Your task to perform on an android device: Search for the best rated drill on Lowes.com Image 0: 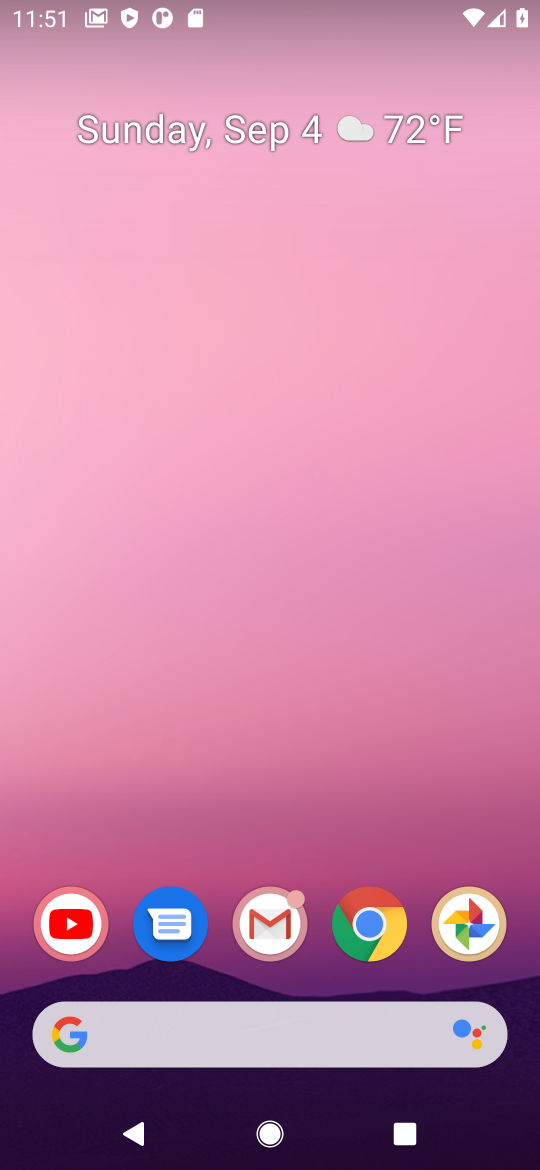
Step 0: press home button
Your task to perform on an android device: Search for the best rated drill on Lowes.com Image 1: 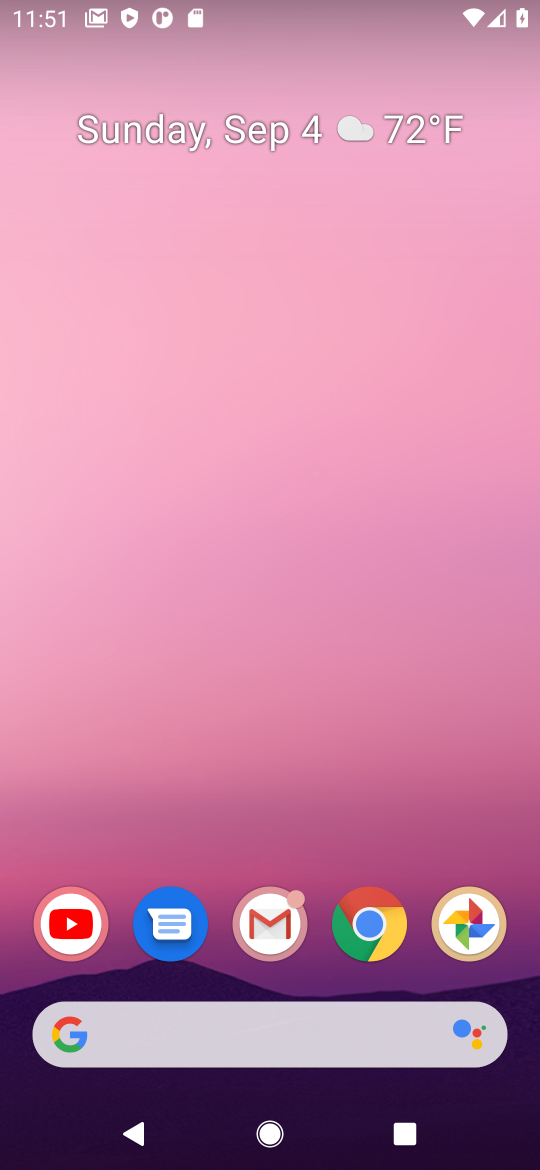
Step 1: click (370, 11)
Your task to perform on an android device: Search for the best rated drill on Lowes.com Image 2: 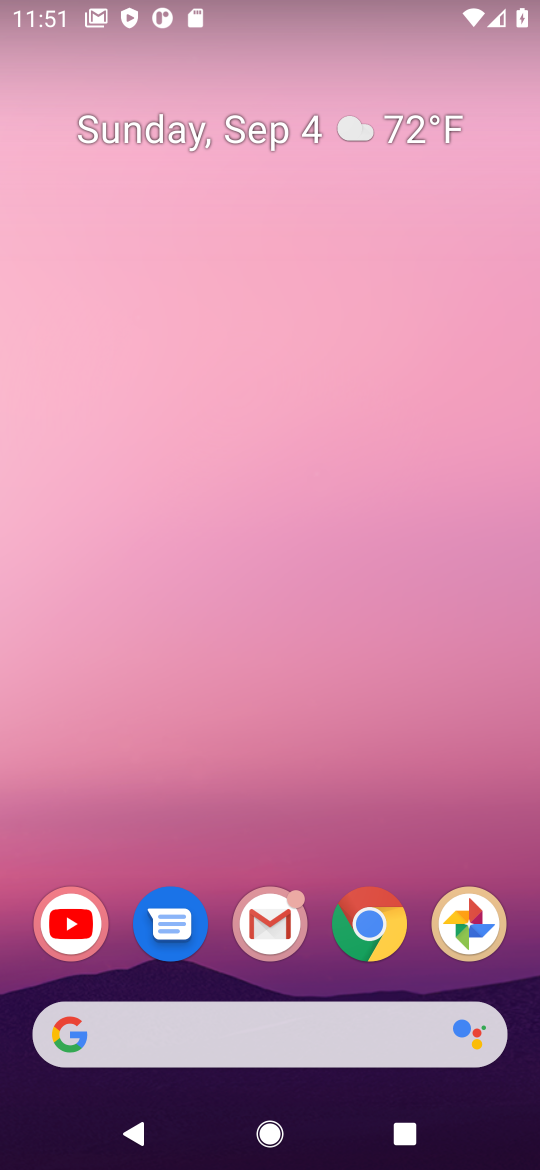
Step 2: drag from (315, 870) to (356, 29)
Your task to perform on an android device: Search for the best rated drill on Lowes.com Image 3: 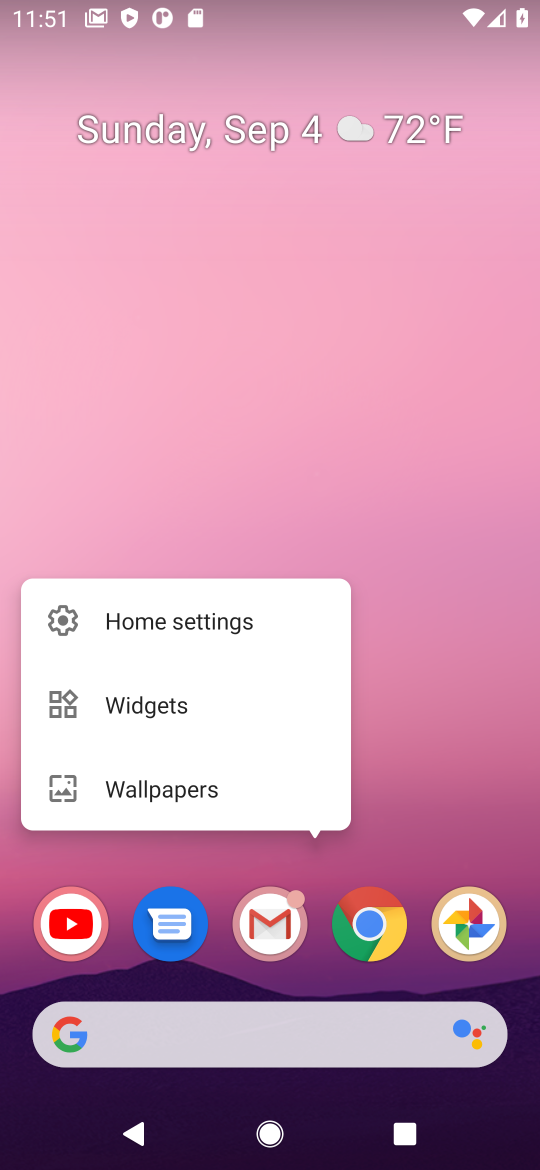
Step 3: click (445, 849)
Your task to perform on an android device: Search for the best rated drill on Lowes.com Image 4: 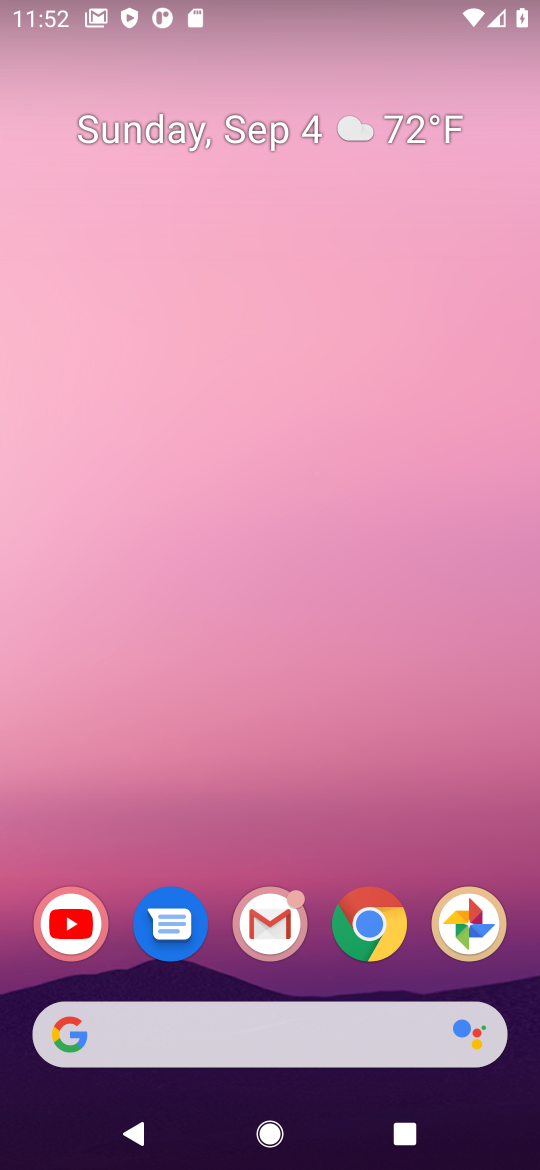
Step 4: drag from (414, 54) to (412, 1)
Your task to perform on an android device: Search for the best rated drill on Lowes.com Image 5: 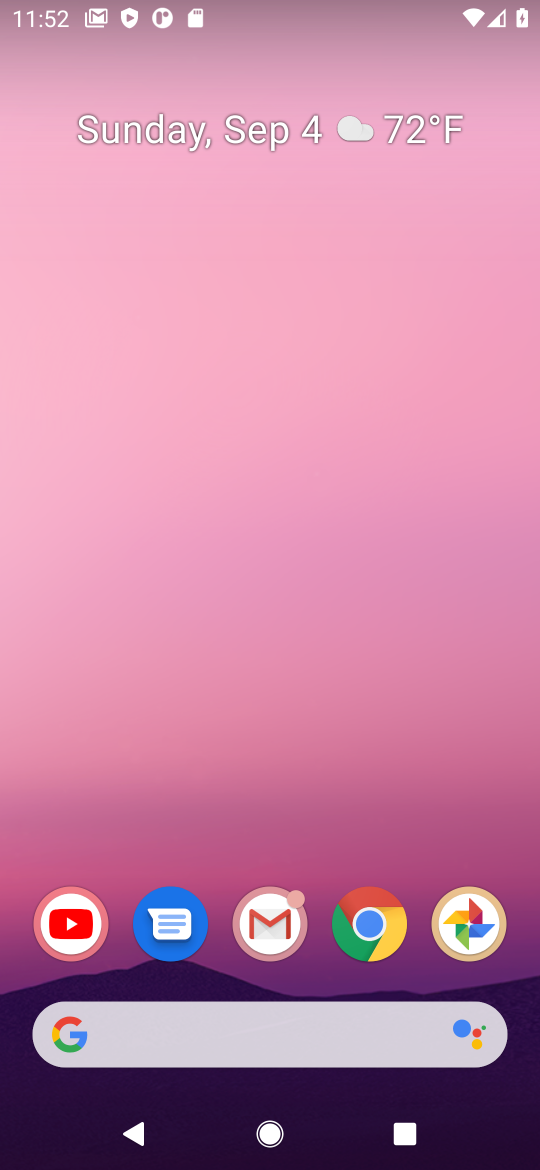
Step 5: drag from (303, 557) to (302, 56)
Your task to perform on an android device: Search for the best rated drill on Lowes.com Image 6: 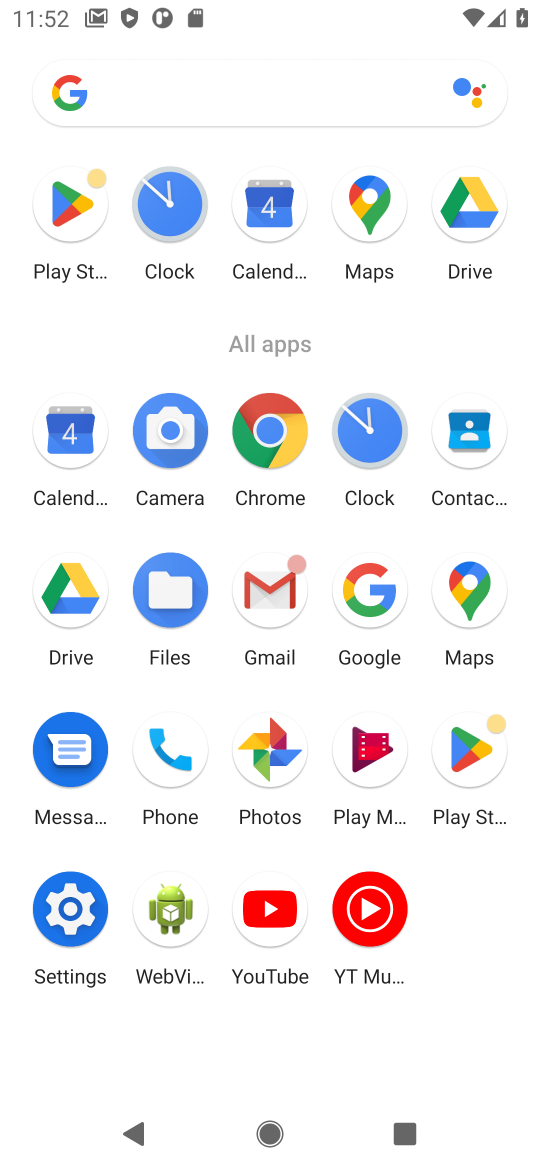
Step 6: click (269, 424)
Your task to perform on an android device: Search for the best rated drill on Lowes.com Image 7: 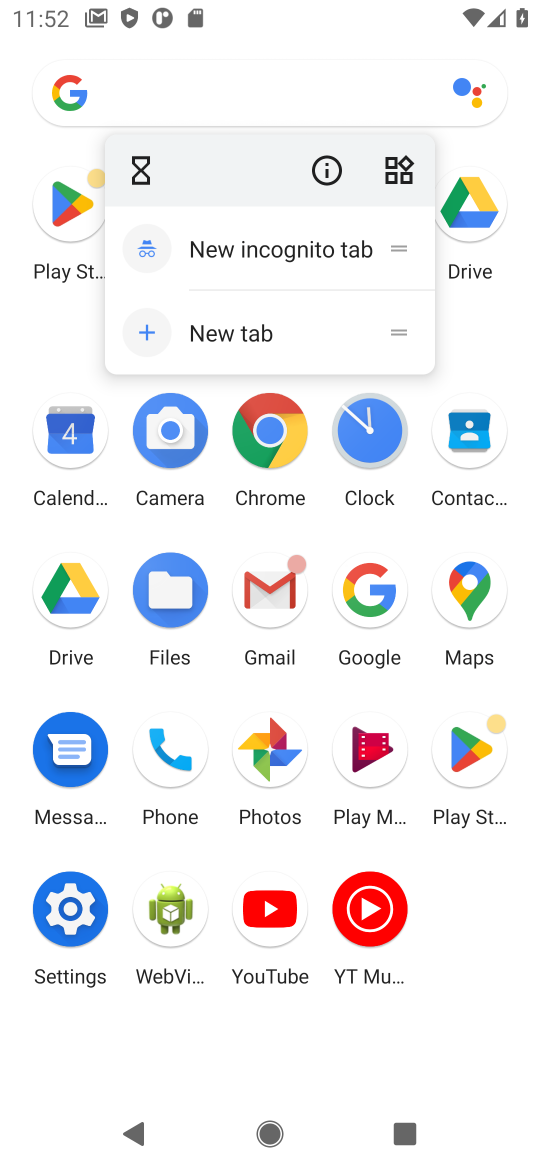
Step 7: click (269, 424)
Your task to perform on an android device: Search for the best rated drill on Lowes.com Image 8: 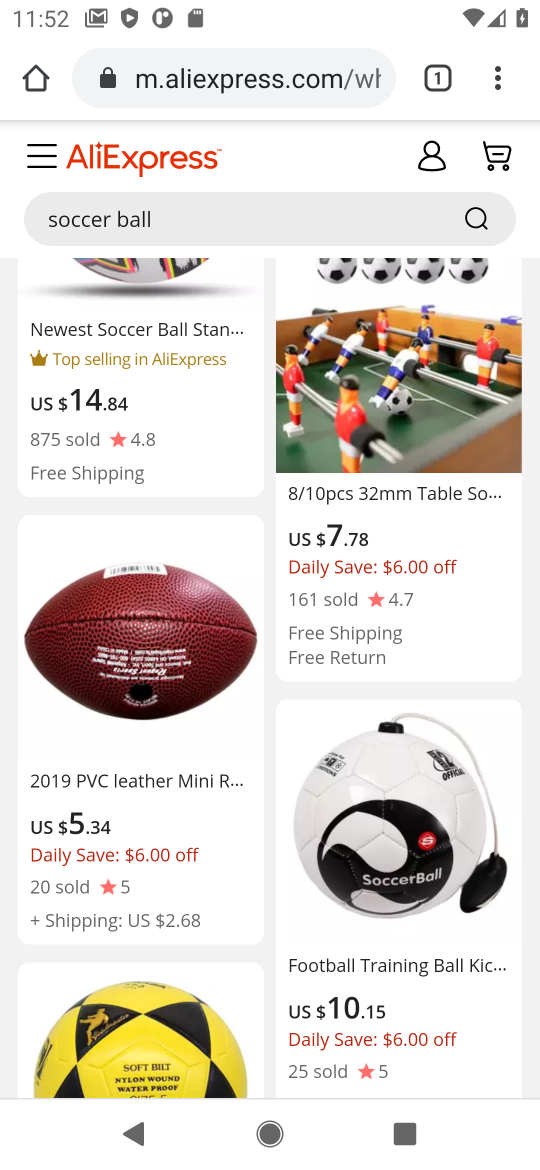
Step 8: click (439, 74)
Your task to perform on an android device: Search for the best rated drill on Lowes.com Image 9: 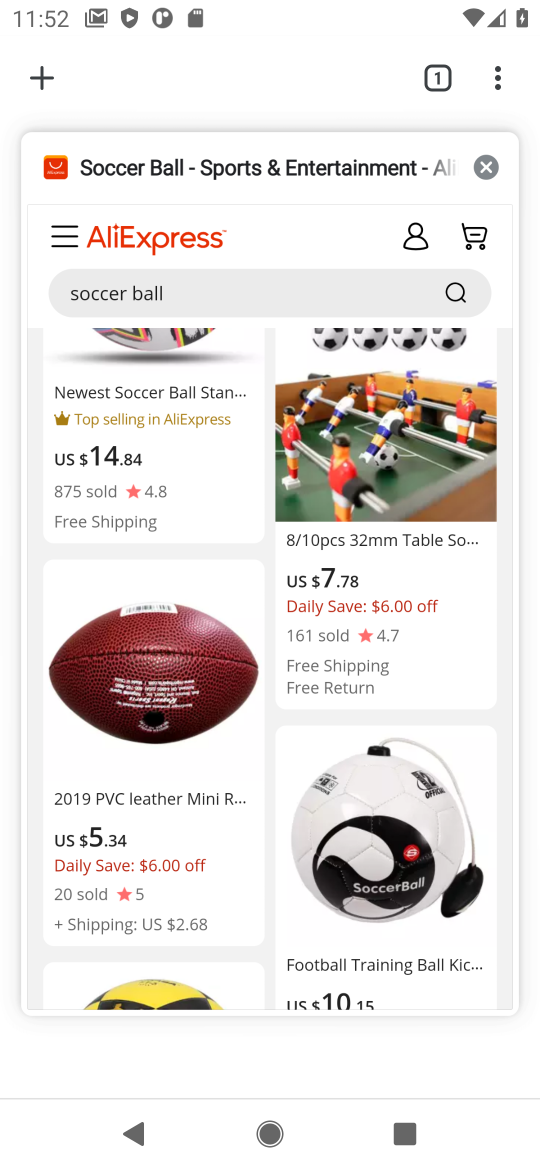
Step 9: click (489, 167)
Your task to perform on an android device: Search for the best rated drill on Lowes.com Image 10: 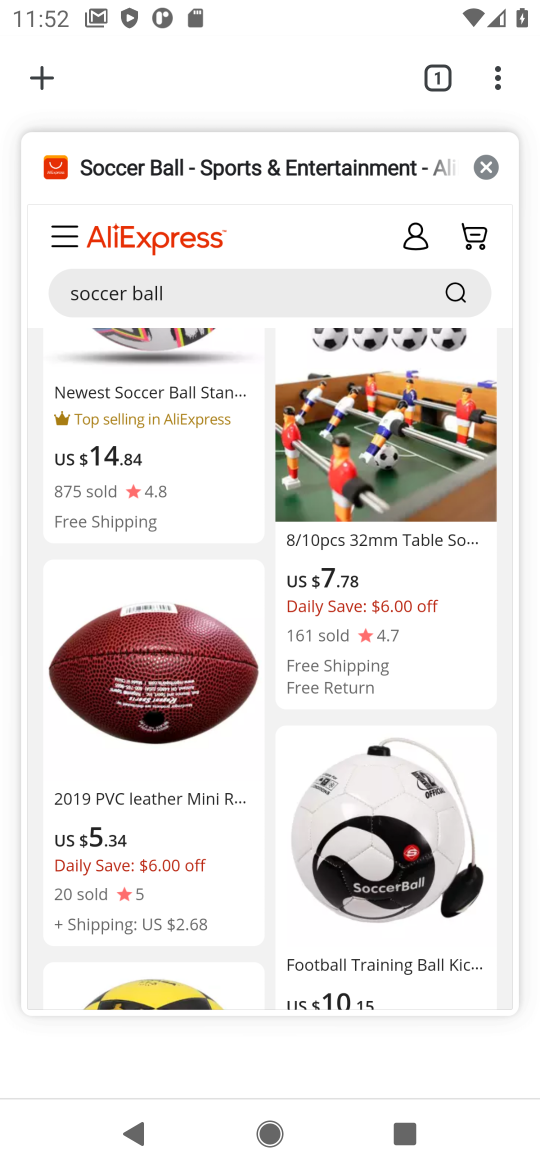
Step 10: click (56, 82)
Your task to perform on an android device: Search for the best rated drill on Lowes.com Image 11: 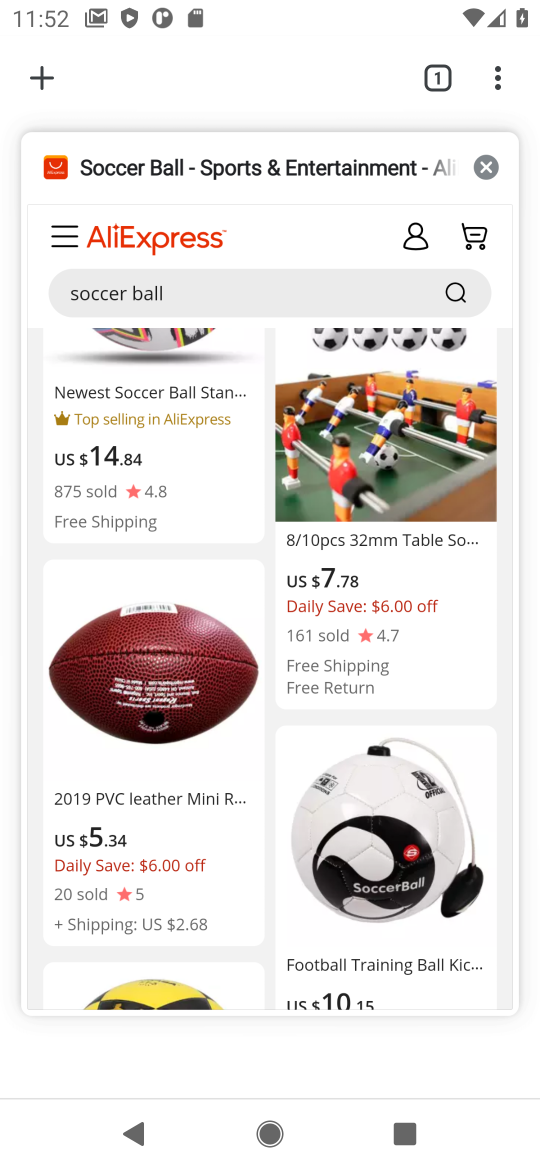
Step 11: click (41, 72)
Your task to perform on an android device: Search for the best rated drill on Lowes.com Image 12: 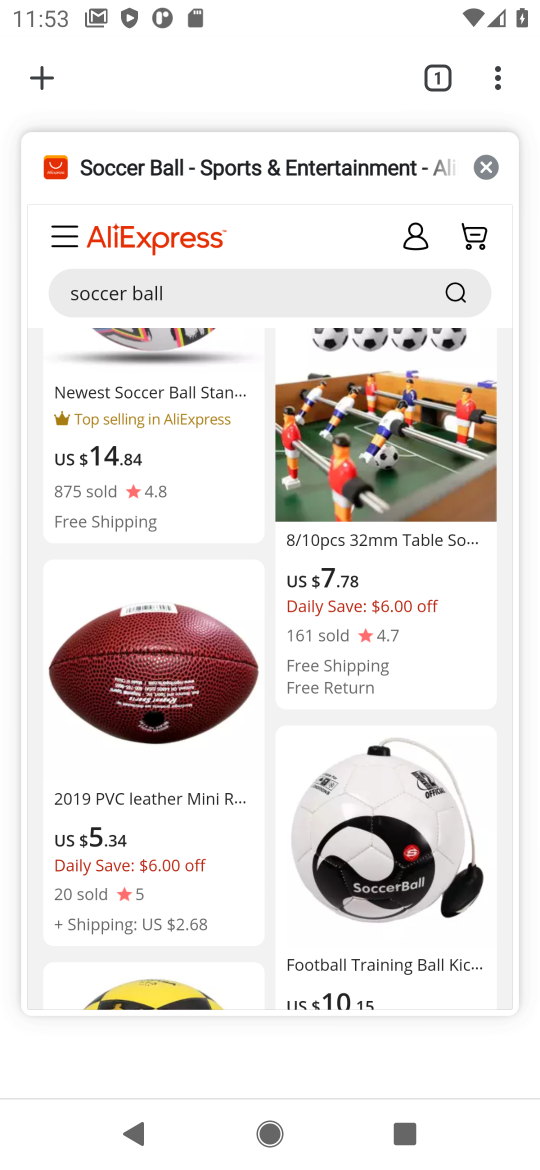
Step 12: click (50, 81)
Your task to perform on an android device: Search for the best rated drill on Lowes.com Image 13: 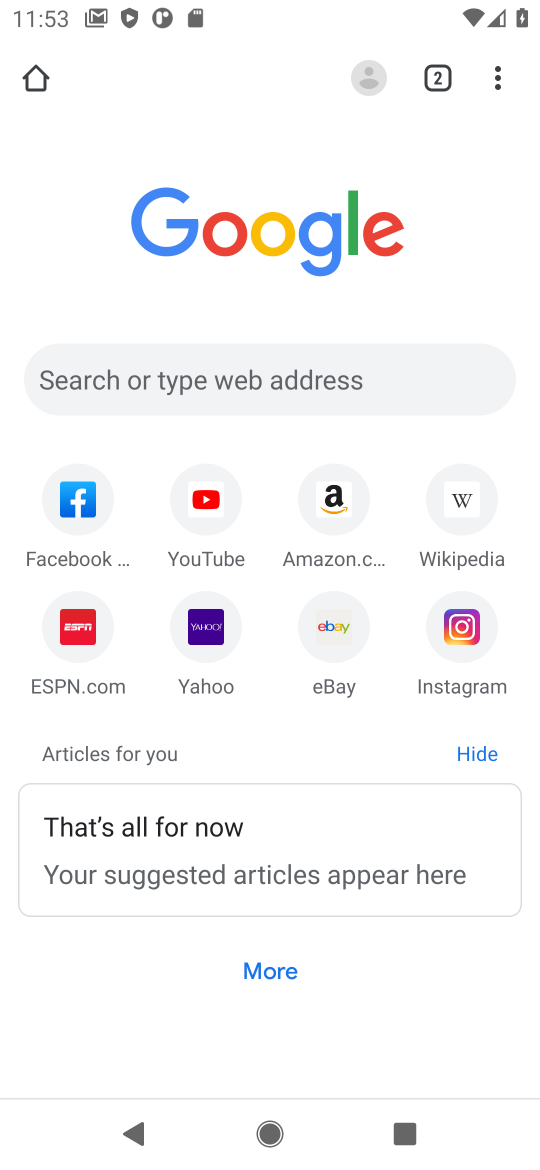
Step 13: click (150, 361)
Your task to perform on an android device: Search for the best rated drill on Lowes.com Image 14: 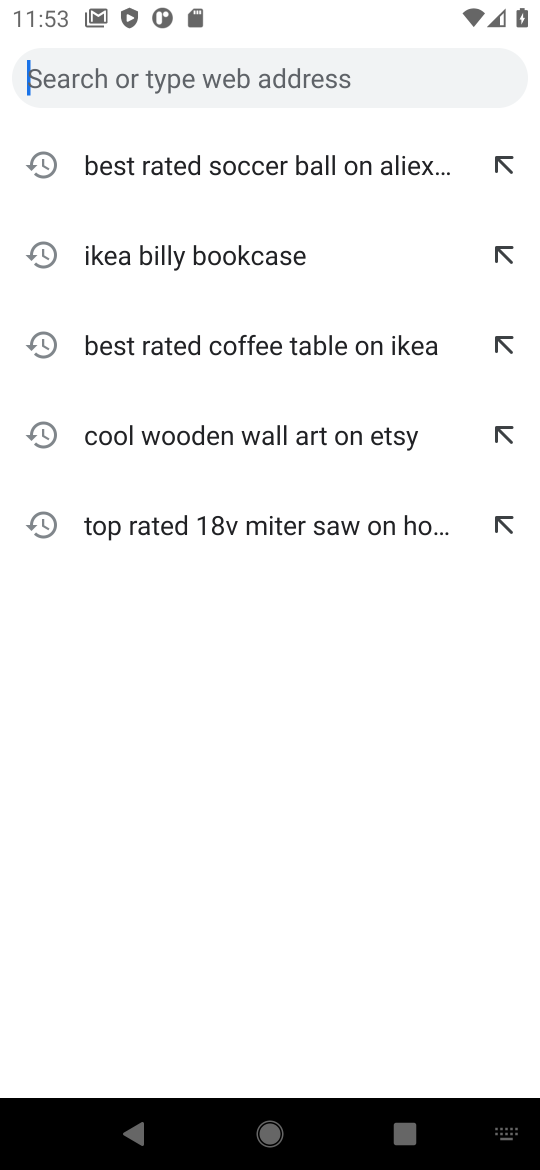
Step 14: type "best rated drill on Lowes.com"
Your task to perform on an android device: Search for the best rated drill on Lowes.com Image 15: 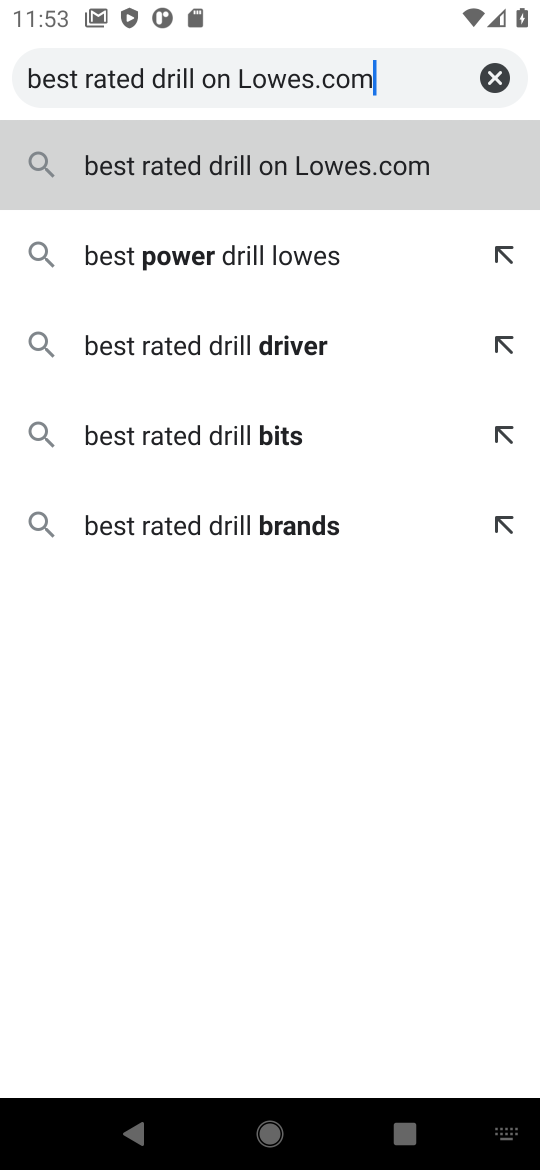
Step 15: click (290, 172)
Your task to perform on an android device: Search for the best rated drill on Lowes.com Image 16: 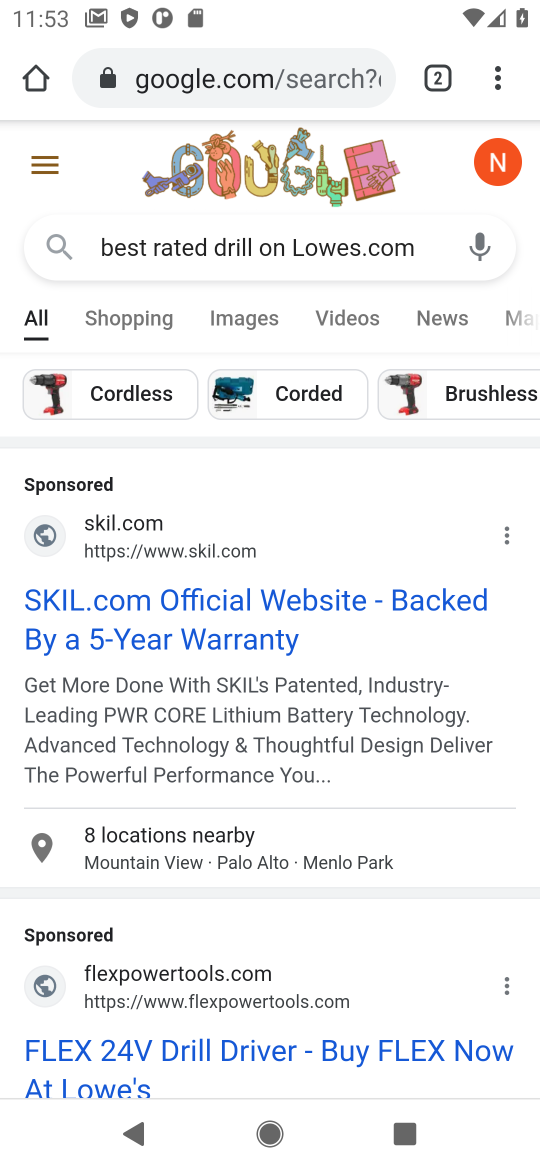
Step 16: drag from (321, 818) to (295, 283)
Your task to perform on an android device: Search for the best rated drill on Lowes.com Image 17: 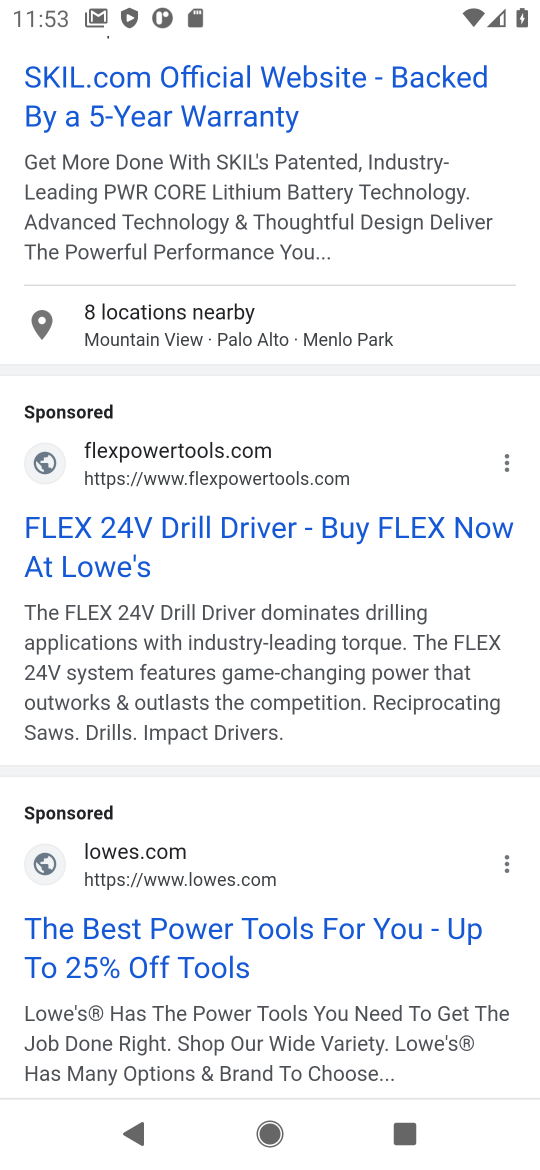
Step 17: drag from (339, 518) to (334, 339)
Your task to perform on an android device: Search for the best rated drill on Lowes.com Image 18: 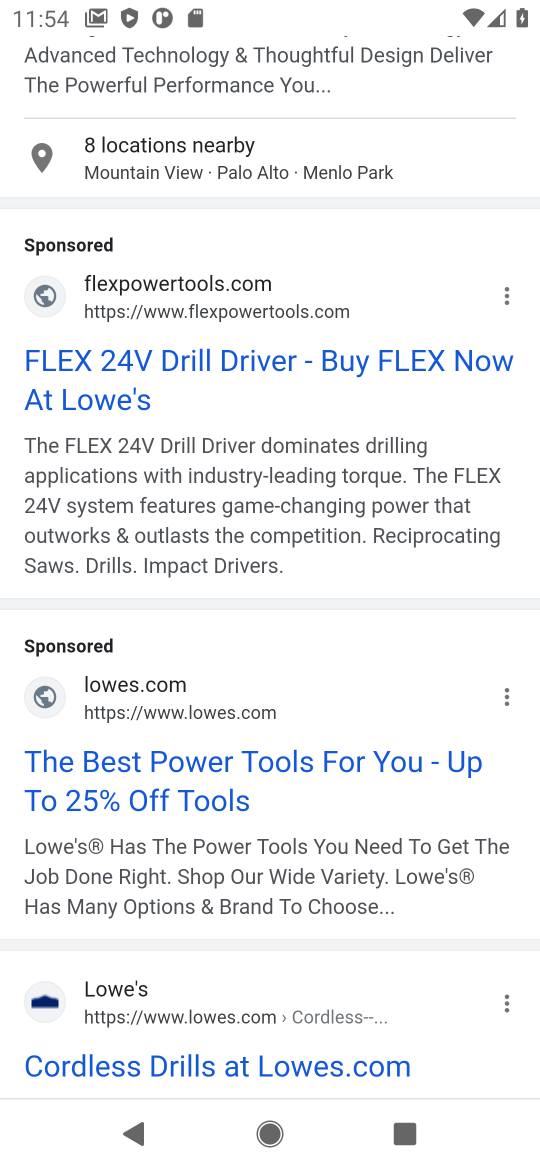
Step 18: click (341, 1068)
Your task to perform on an android device: Search for the best rated drill on Lowes.com Image 19: 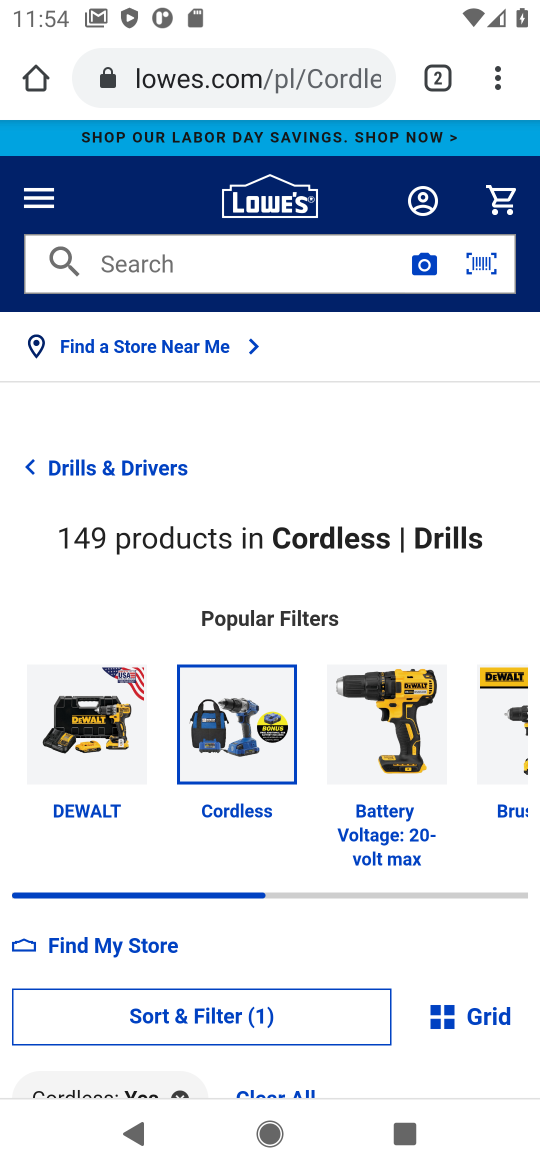
Step 19: drag from (277, 773) to (279, 189)
Your task to perform on an android device: Search for the best rated drill on Lowes.com Image 20: 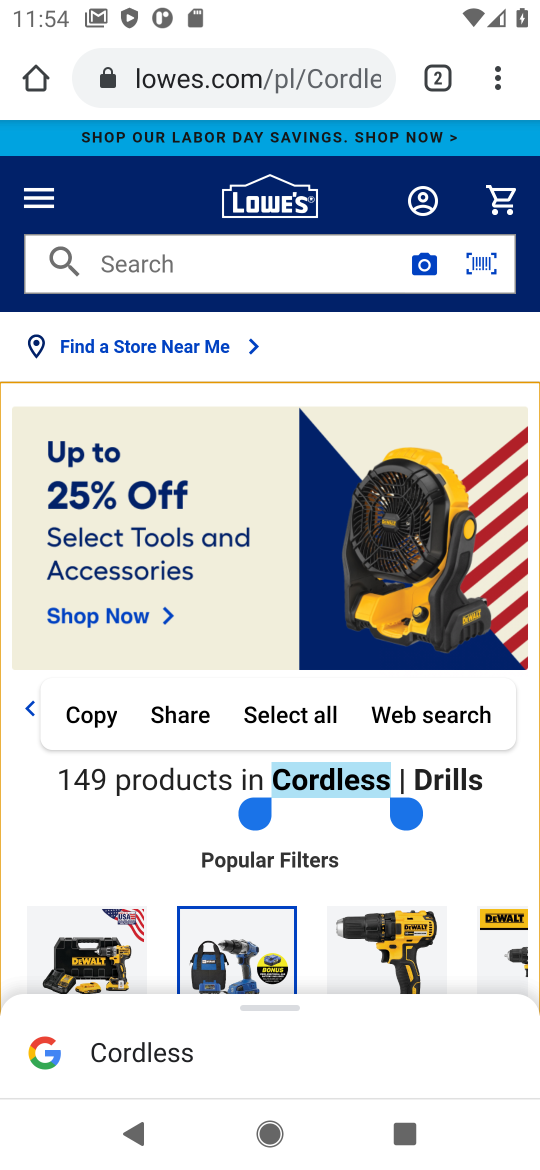
Step 20: drag from (296, 707) to (277, 442)
Your task to perform on an android device: Search for the best rated drill on Lowes.com Image 21: 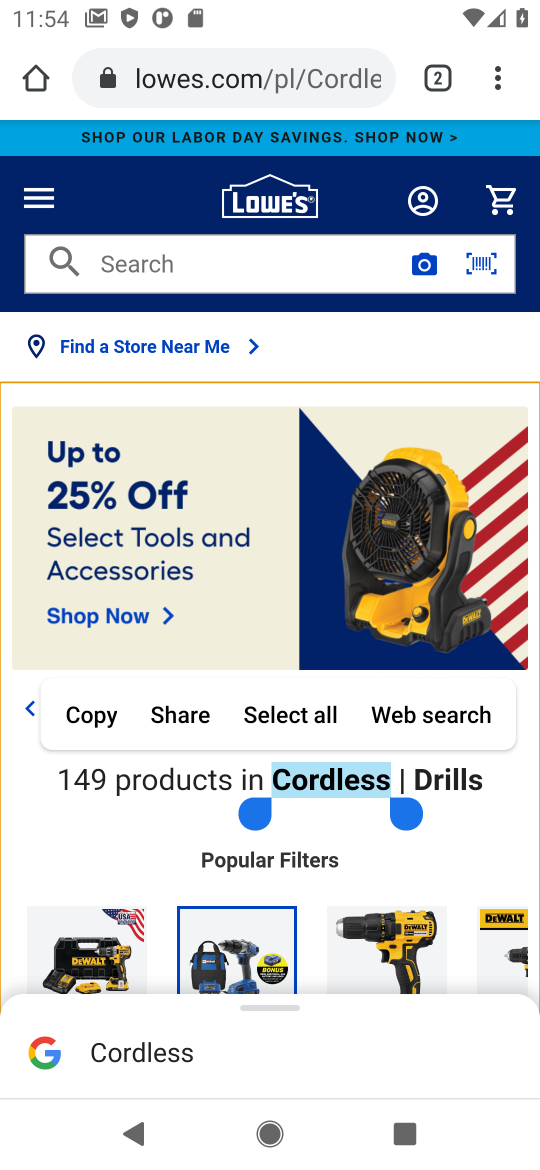
Step 21: click (171, 105)
Your task to perform on an android device: Search for the best rated drill on Lowes.com Image 22: 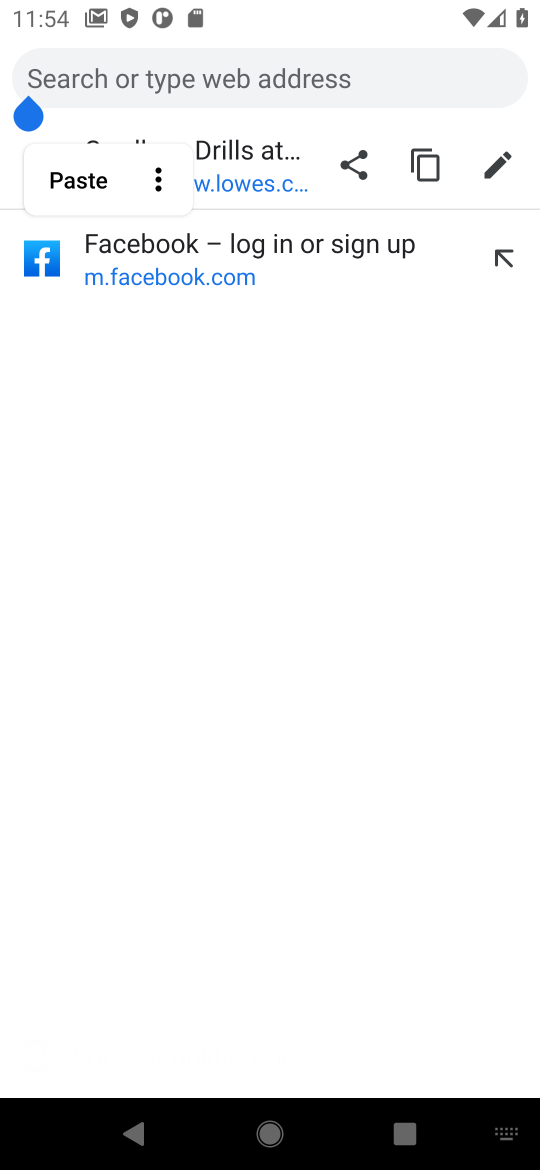
Step 22: click (220, 169)
Your task to perform on an android device: Search for the best rated drill on Lowes.com Image 23: 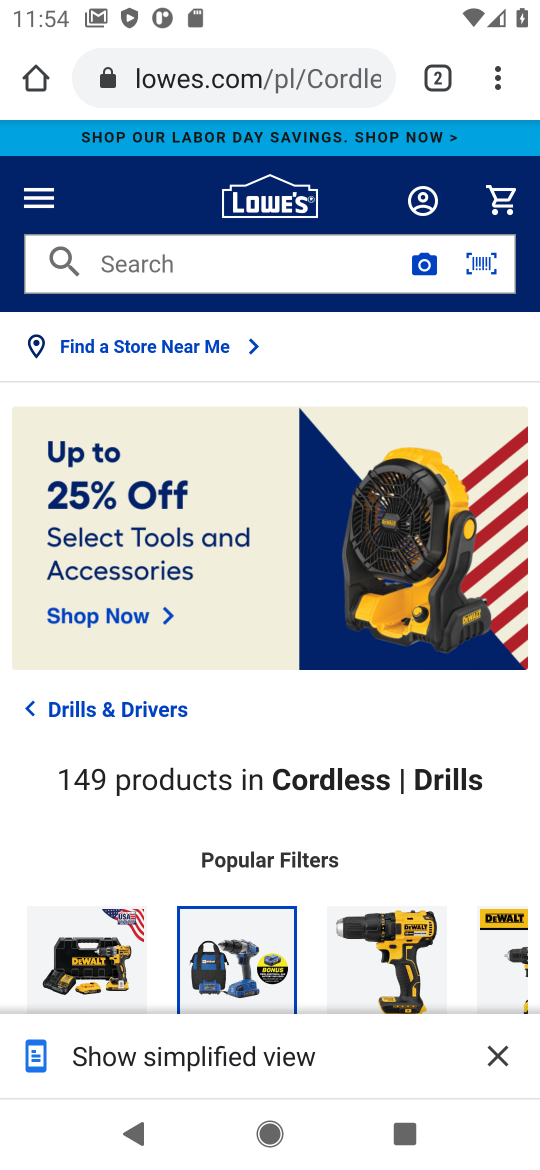
Step 23: click (271, 193)
Your task to perform on an android device: Search for the best rated drill on Lowes.com Image 24: 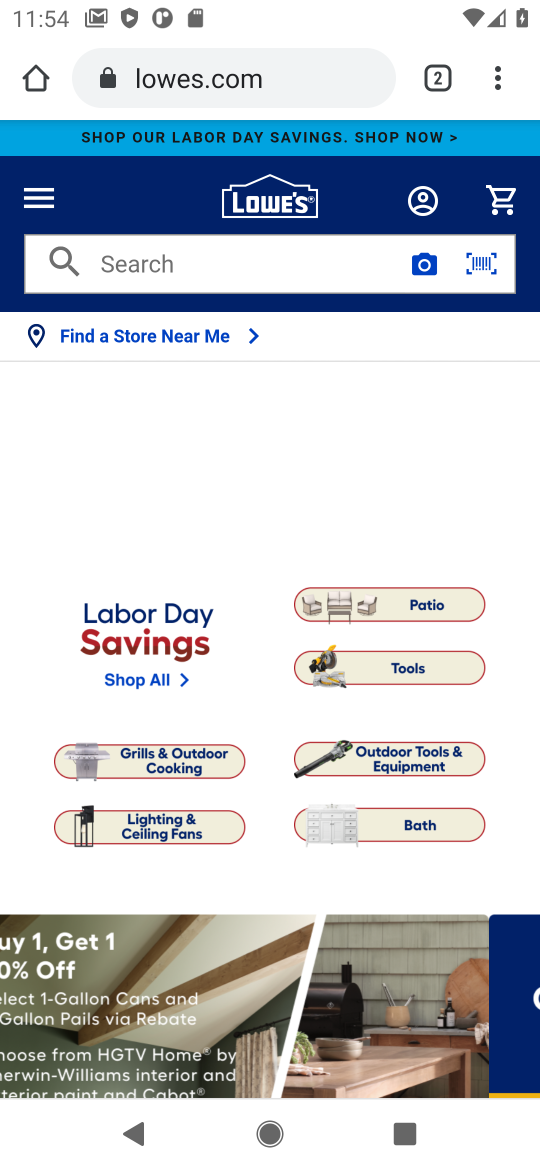
Step 24: task complete